Your task to perform on an android device: star an email in the gmail app Image 0: 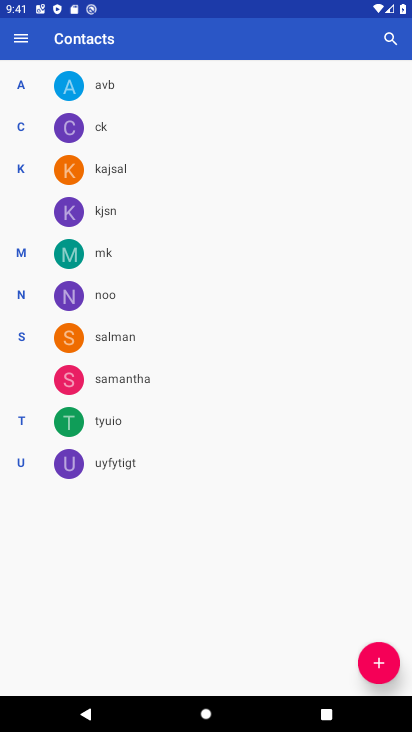
Step 0: press home button
Your task to perform on an android device: star an email in the gmail app Image 1: 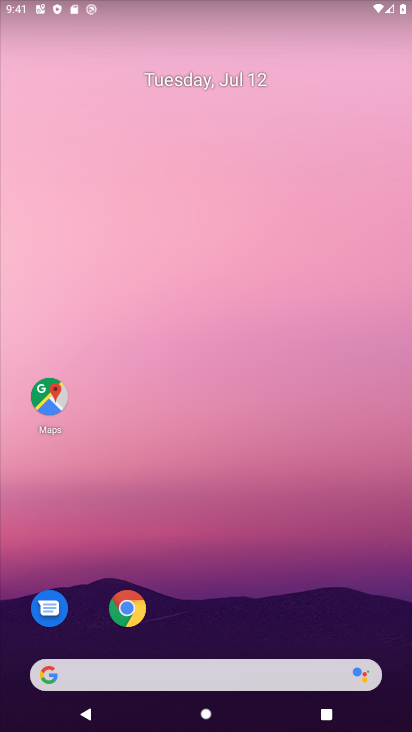
Step 1: drag from (301, 644) to (294, 106)
Your task to perform on an android device: star an email in the gmail app Image 2: 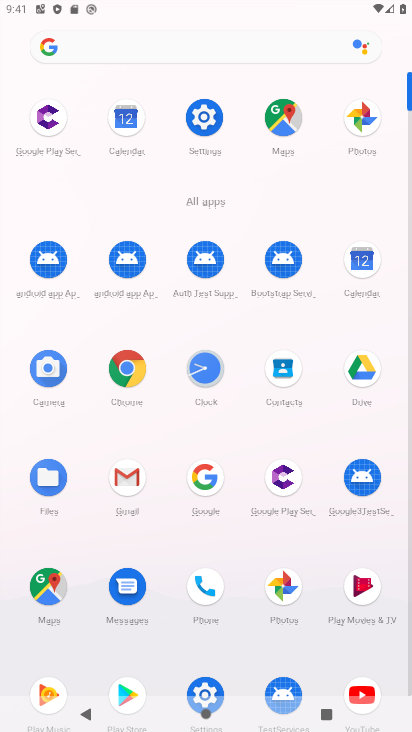
Step 2: click (131, 476)
Your task to perform on an android device: star an email in the gmail app Image 3: 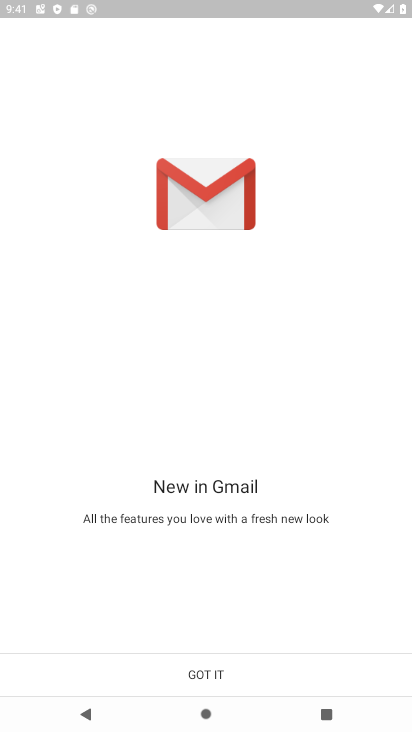
Step 3: click (213, 680)
Your task to perform on an android device: star an email in the gmail app Image 4: 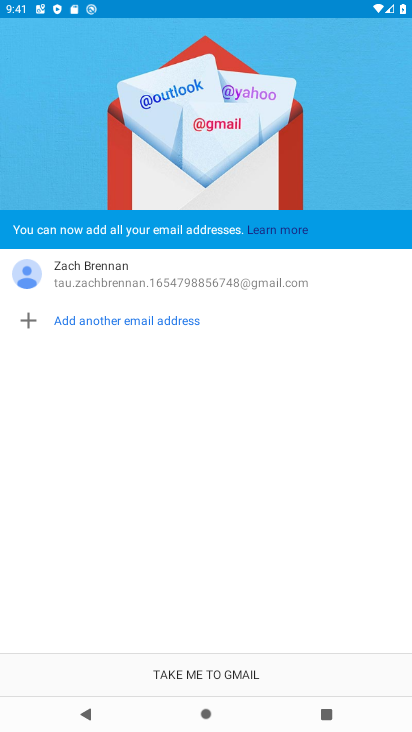
Step 4: click (220, 673)
Your task to perform on an android device: star an email in the gmail app Image 5: 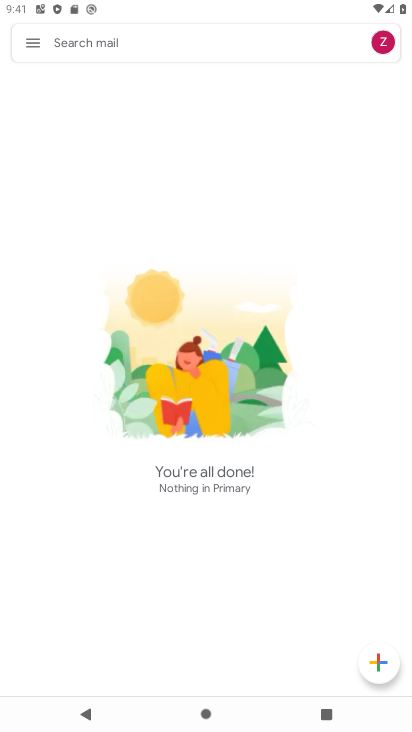
Step 5: click (30, 48)
Your task to perform on an android device: star an email in the gmail app Image 6: 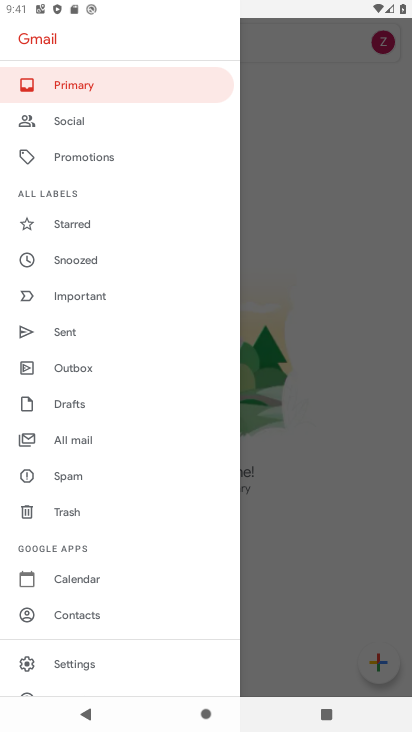
Step 6: click (78, 434)
Your task to perform on an android device: star an email in the gmail app Image 7: 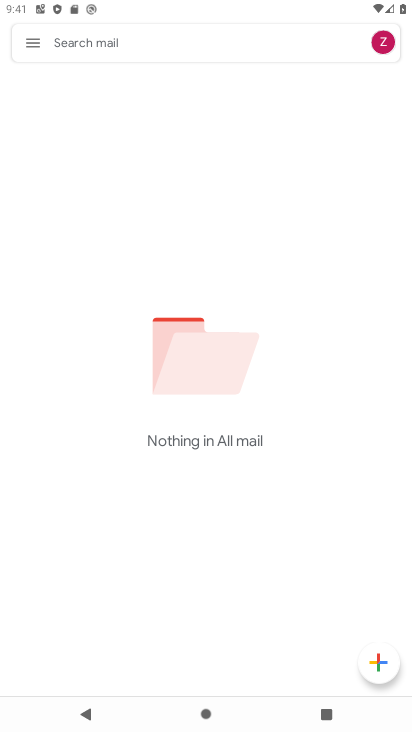
Step 7: task complete